Your task to perform on an android device: turn off data saver in the chrome app Image 0: 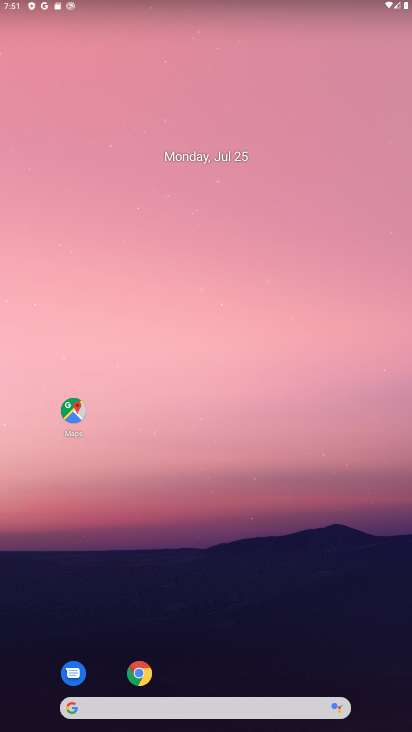
Step 0: click (150, 674)
Your task to perform on an android device: turn off data saver in the chrome app Image 1: 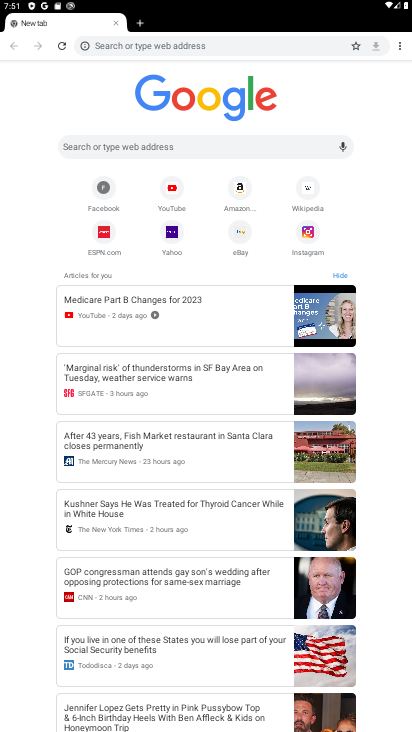
Step 1: click (395, 48)
Your task to perform on an android device: turn off data saver in the chrome app Image 2: 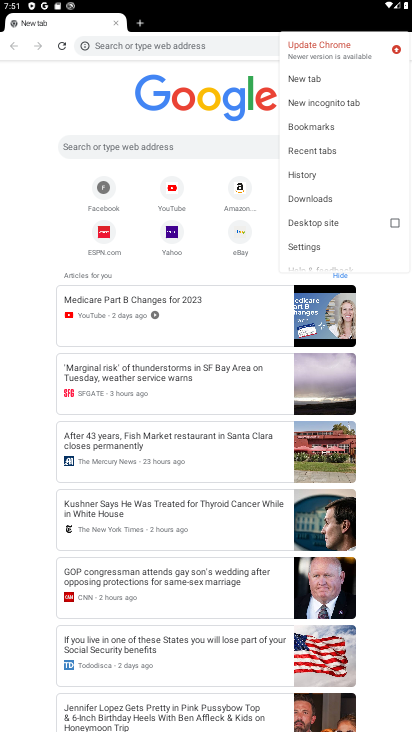
Step 2: click (320, 250)
Your task to perform on an android device: turn off data saver in the chrome app Image 3: 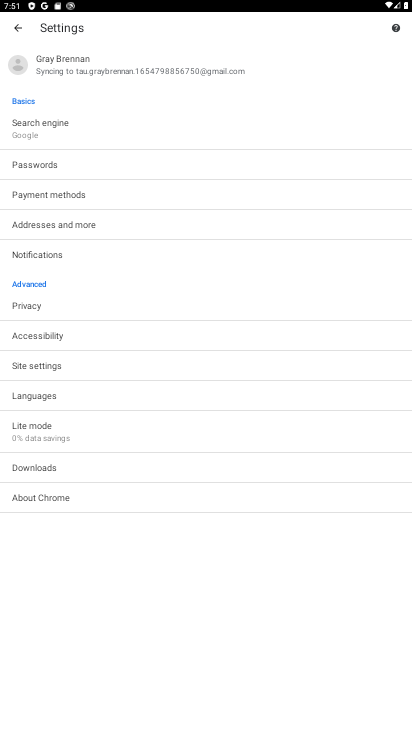
Step 3: click (56, 427)
Your task to perform on an android device: turn off data saver in the chrome app Image 4: 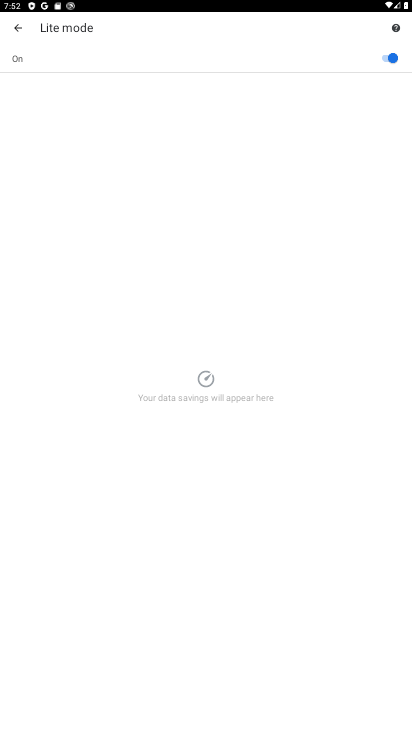
Step 4: click (382, 59)
Your task to perform on an android device: turn off data saver in the chrome app Image 5: 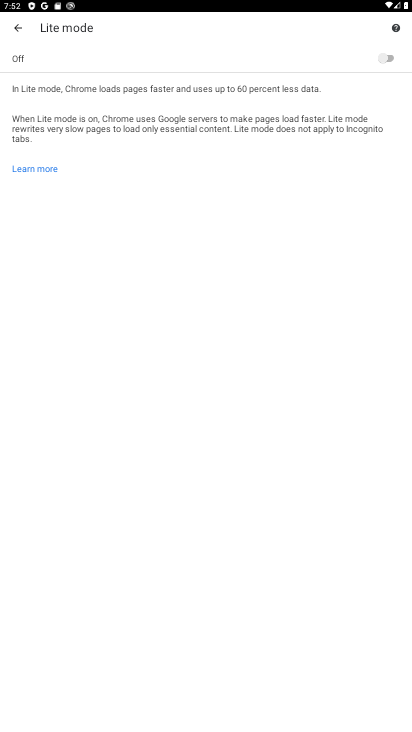
Step 5: task complete